Your task to perform on an android device: install app "Adobe Express: Graphic Design" Image 0: 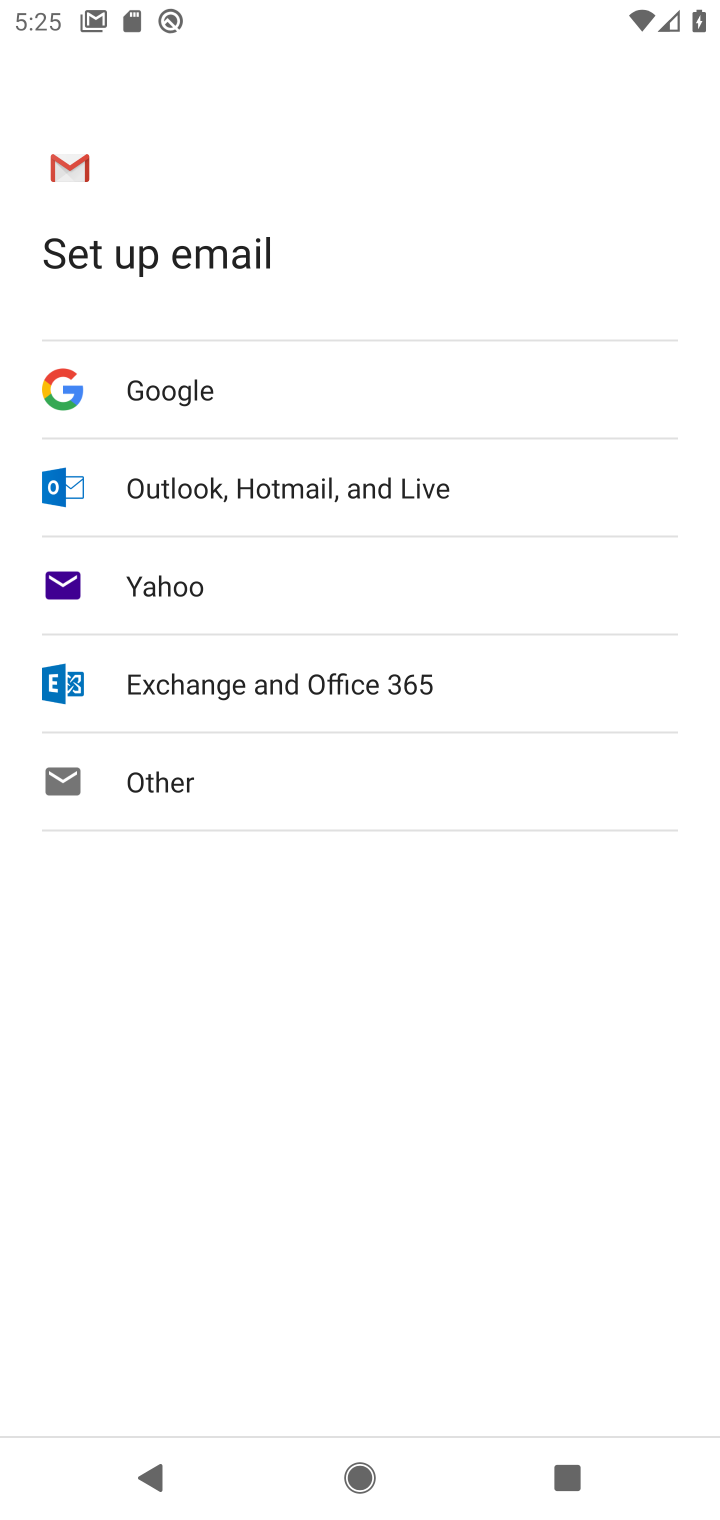
Step 0: press back button
Your task to perform on an android device: install app "Adobe Express: Graphic Design" Image 1: 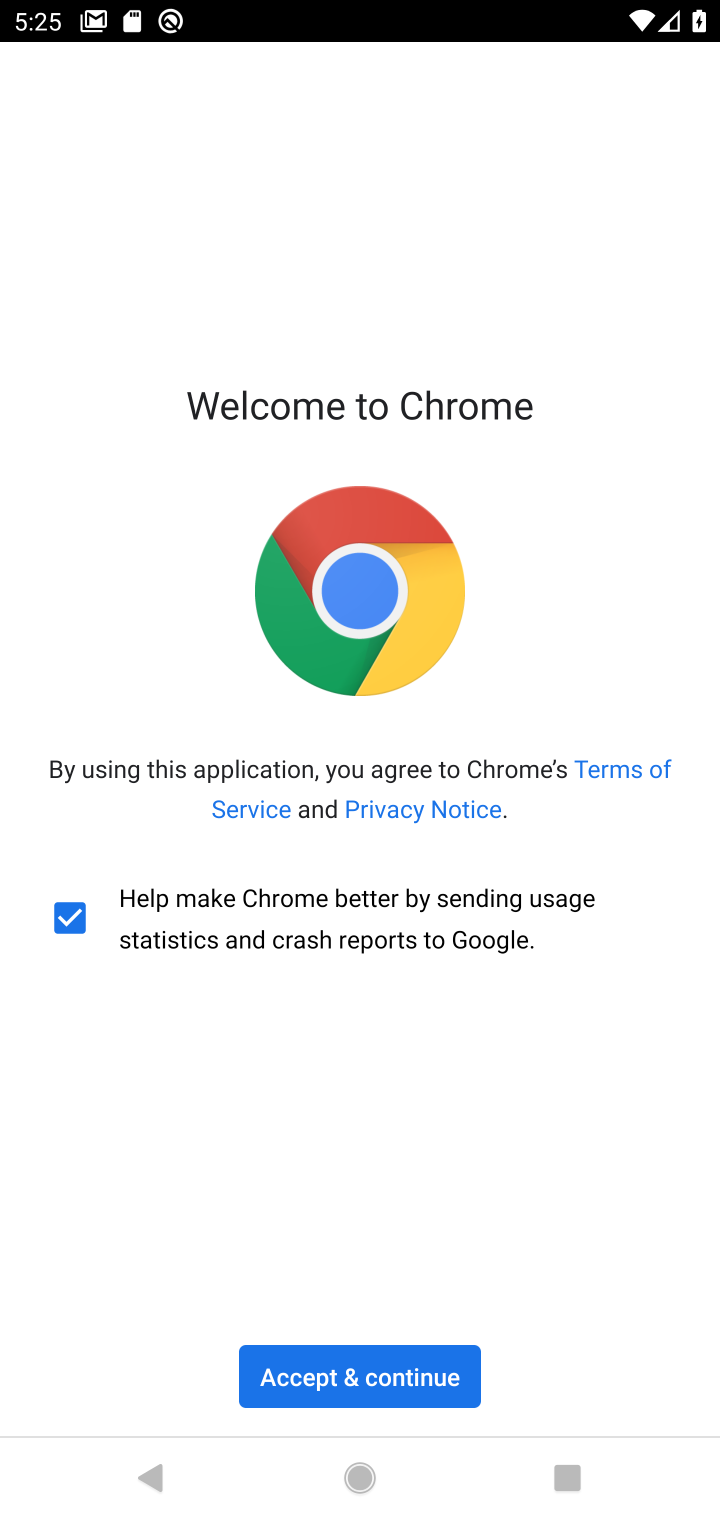
Step 1: press back button
Your task to perform on an android device: install app "Adobe Express: Graphic Design" Image 2: 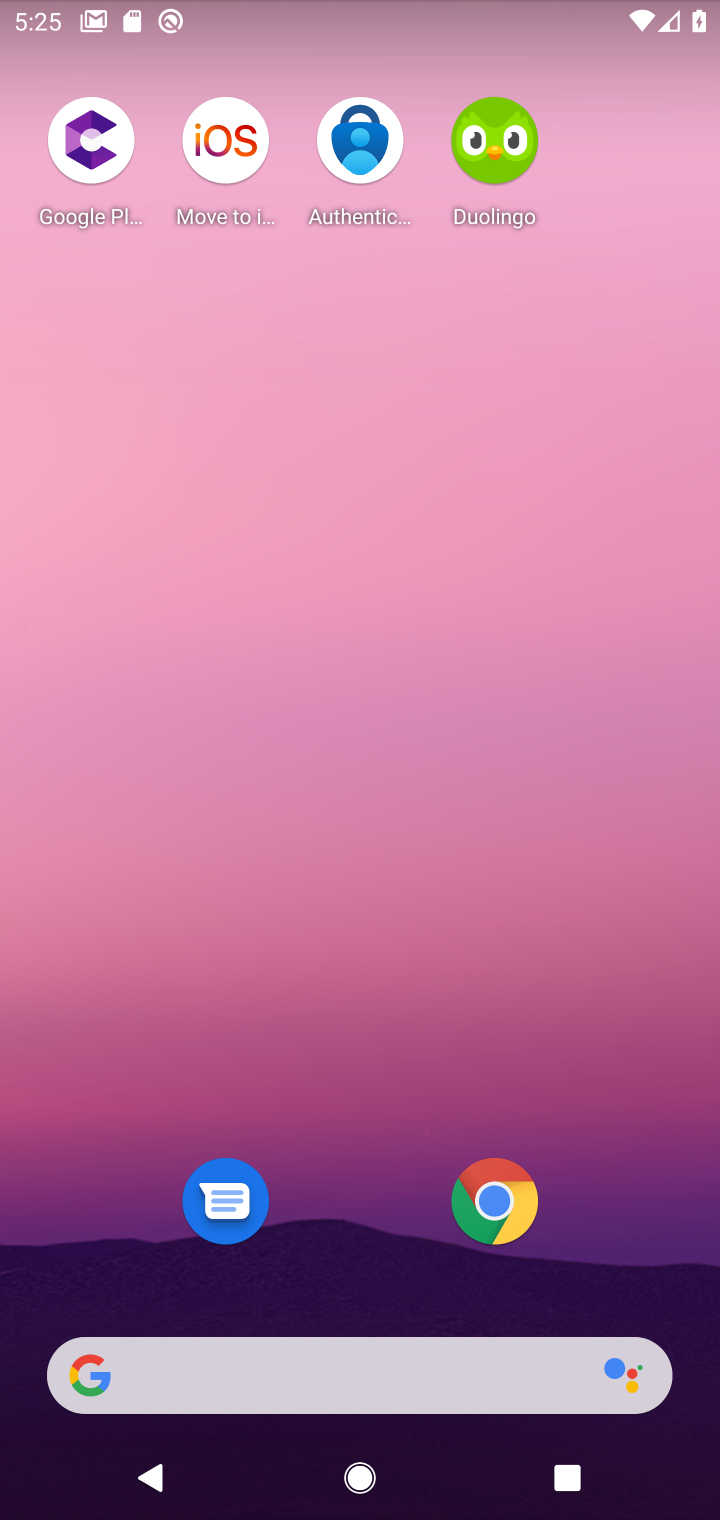
Step 2: drag from (320, 939) to (325, 530)
Your task to perform on an android device: install app "Adobe Express: Graphic Design" Image 3: 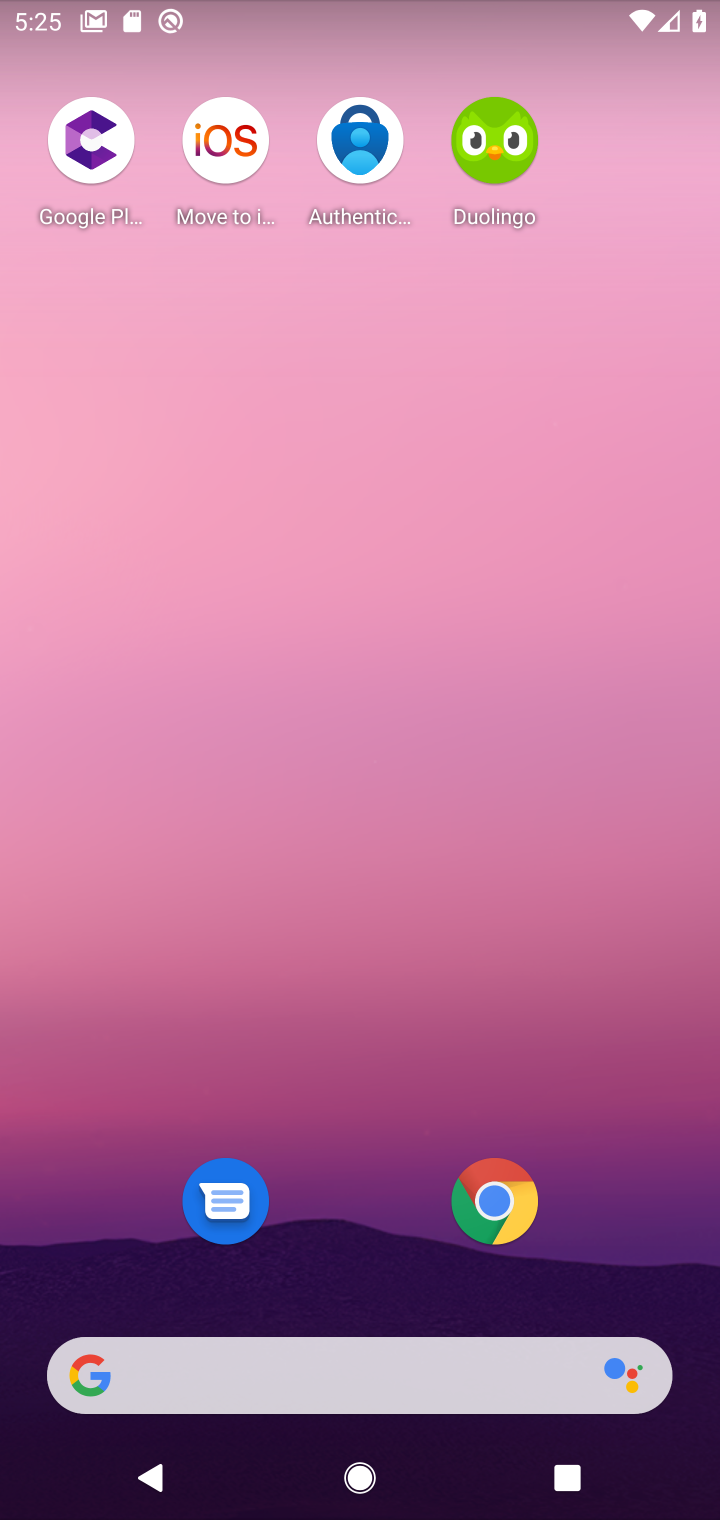
Step 3: drag from (370, 707) to (371, 37)
Your task to perform on an android device: install app "Adobe Express: Graphic Design" Image 4: 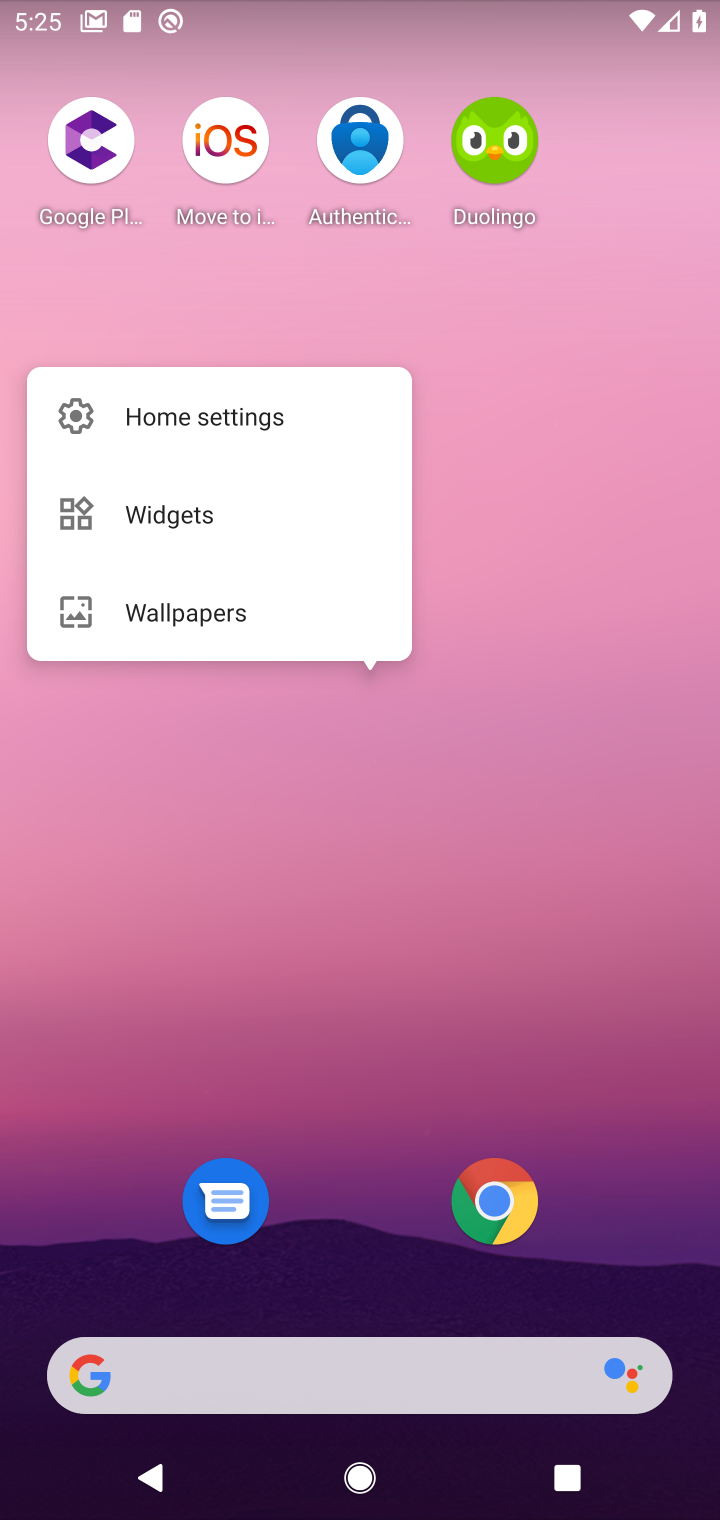
Step 4: drag from (352, 414) to (350, 319)
Your task to perform on an android device: install app "Adobe Express: Graphic Design" Image 5: 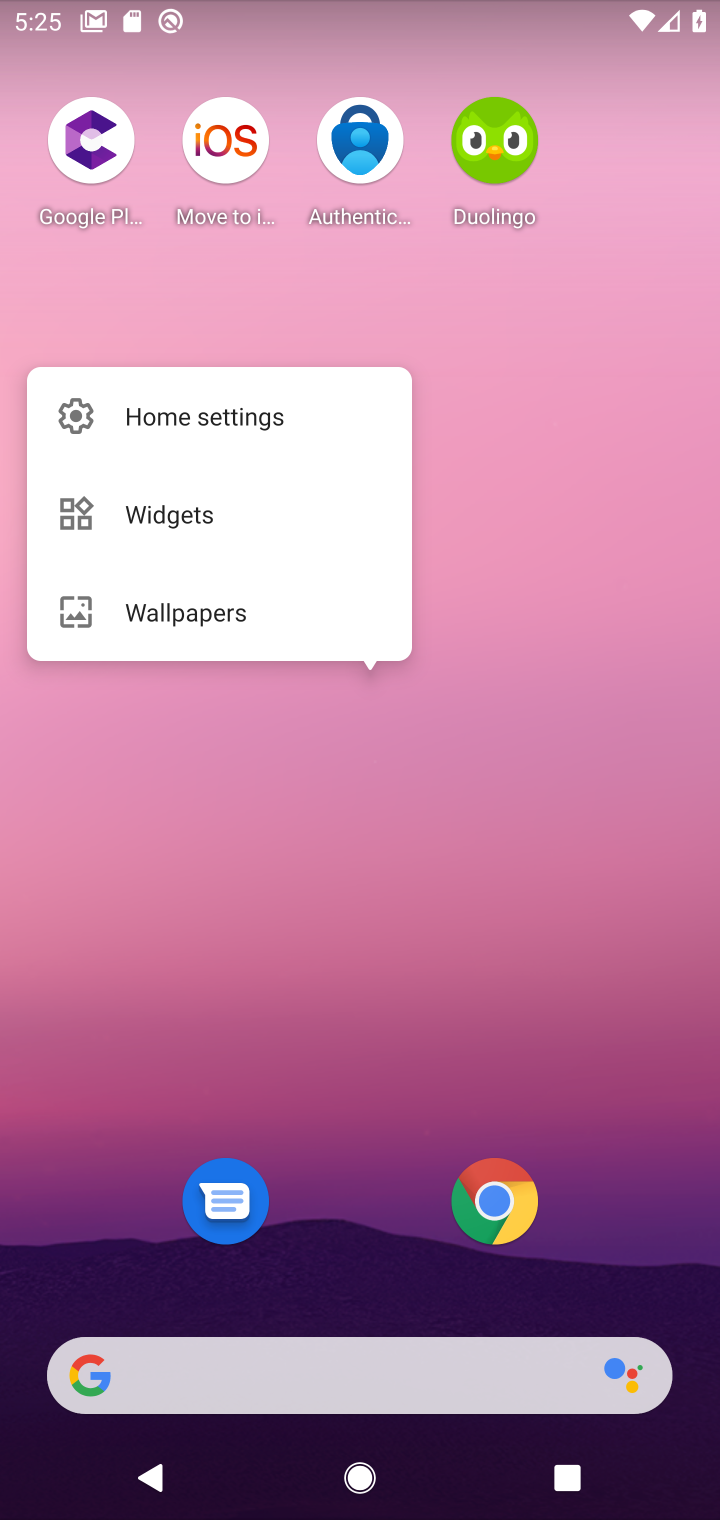
Step 5: drag from (415, 1008) to (433, 271)
Your task to perform on an android device: install app "Adobe Express: Graphic Design" Image 6: 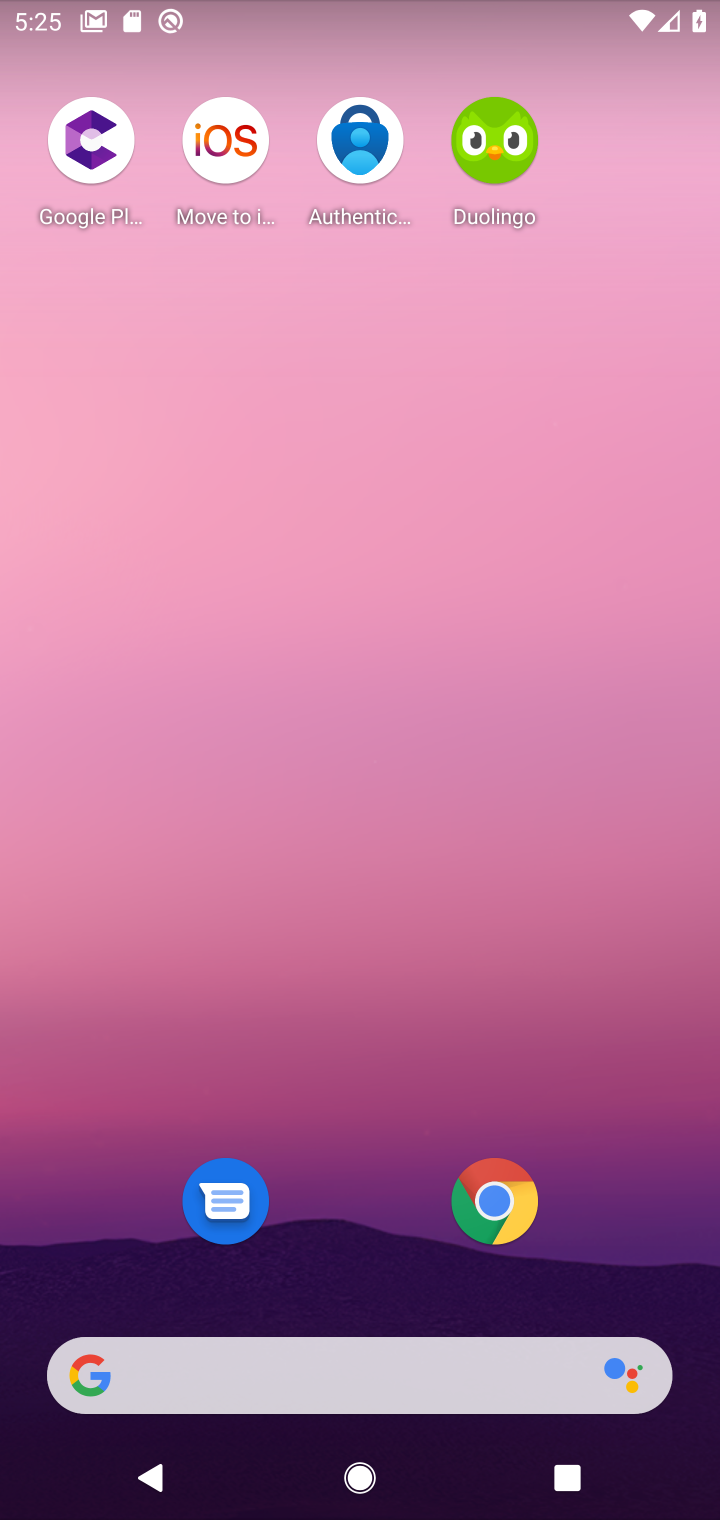
Step 6: drag from (315, 900) to (320, 463)
Your task to perform on an android device: install app "Adobe Express: Graphic Design" Image 7: 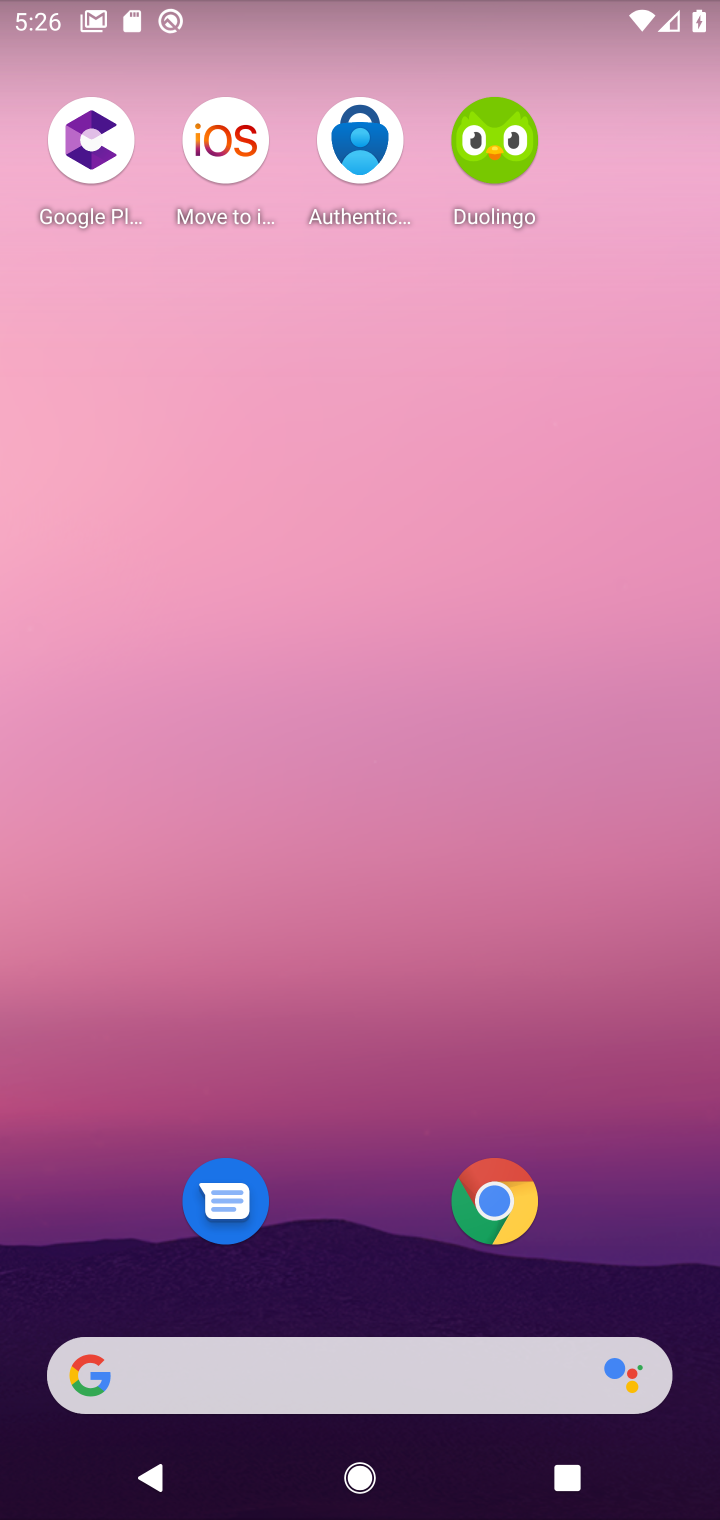
Step 7: drag from (355, 1129) to (509, 3)
Your task to perform on an android device: install app "Adobe Express: Graphic Design" Image 8: 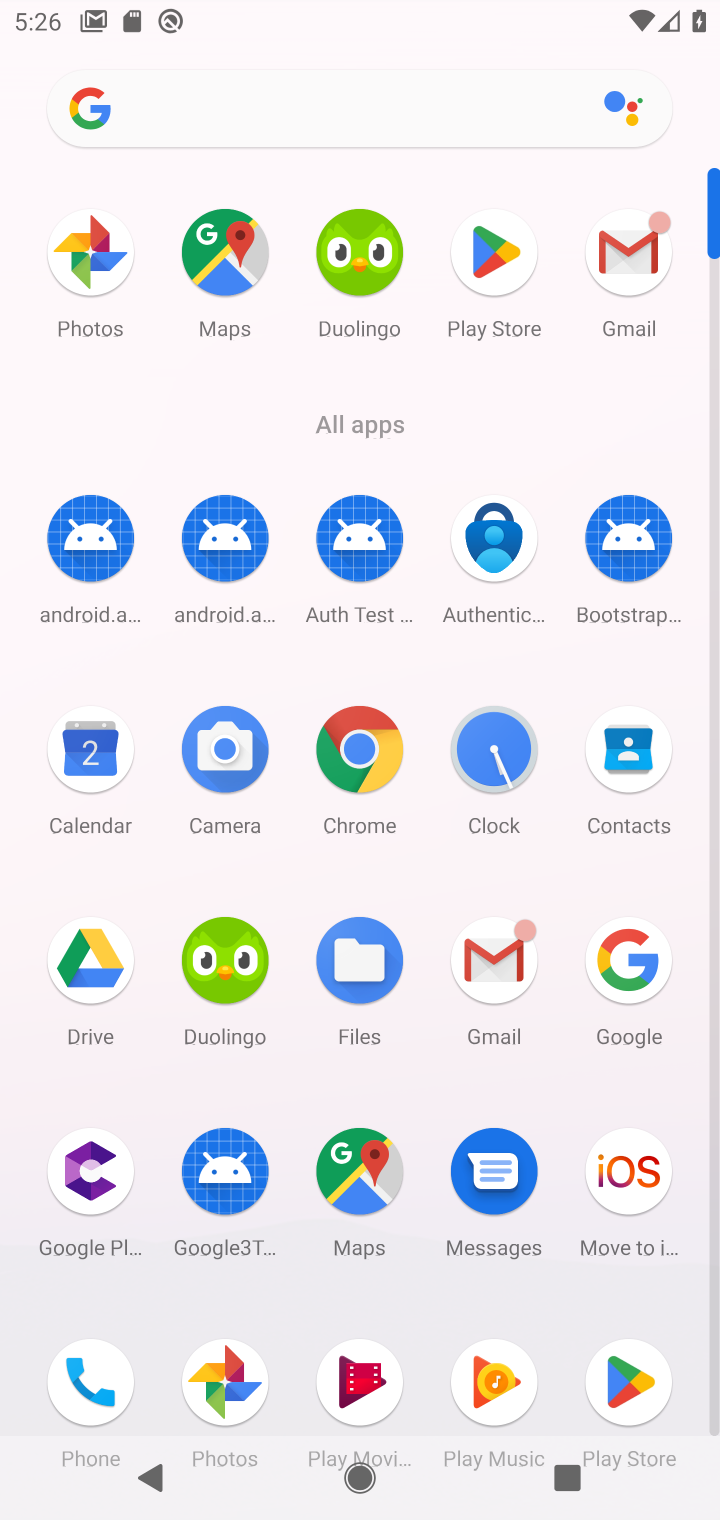
Step 8: click (489, 359)
Your task to perform on an android device: install app "Adobe Express: Graphic Design" Image 9: 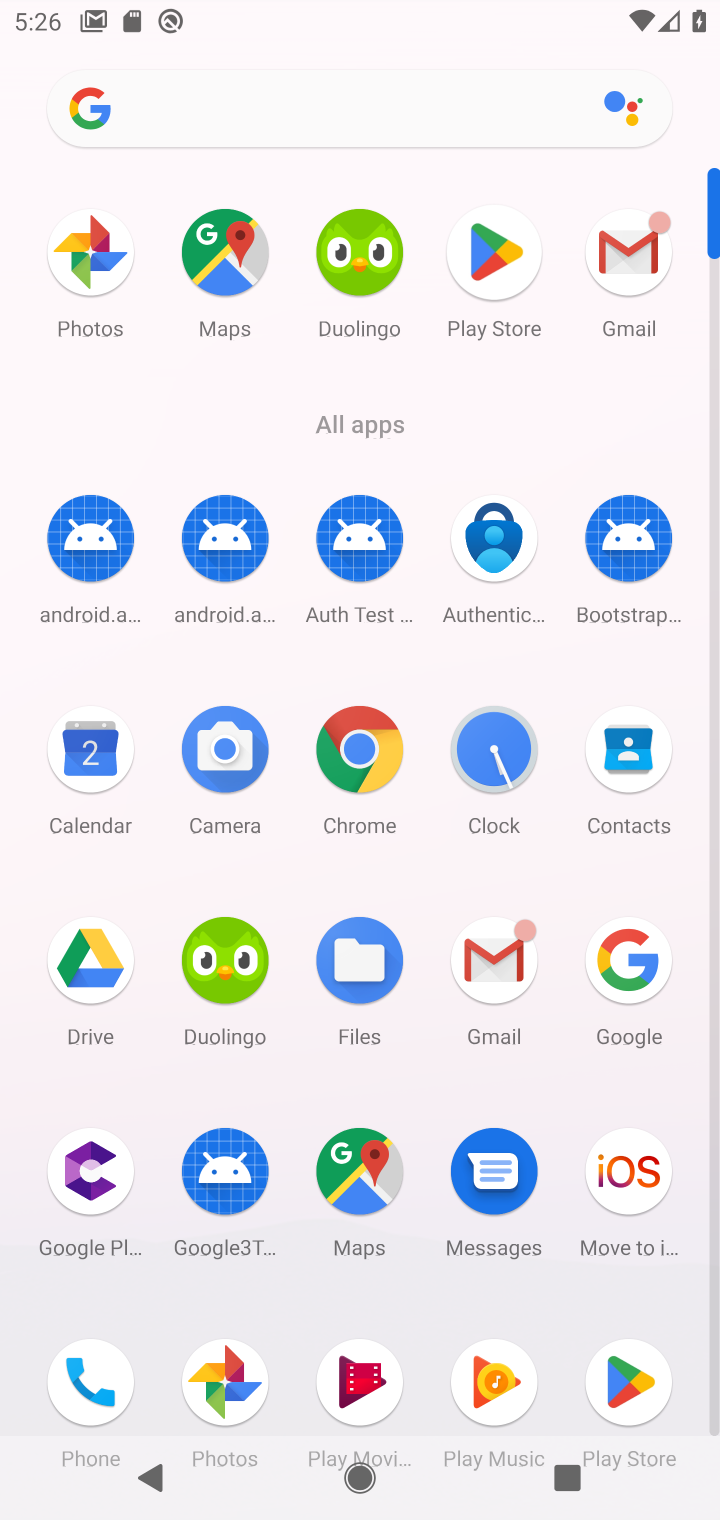
Step 9: click (480, 259)
Your task to perform on an android device: install app "Adobe Express: Graphic Design" Image 10: 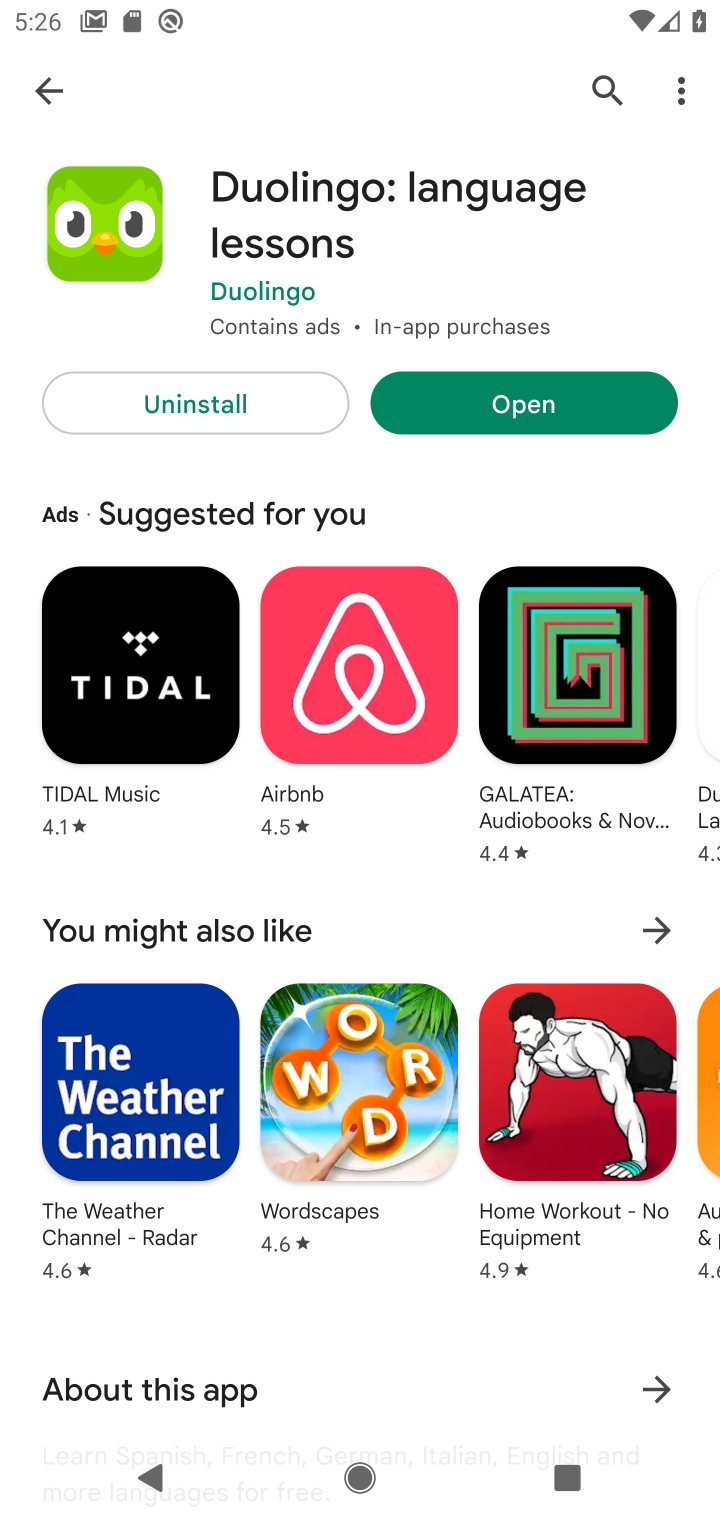
Step 10: click (607, 66)
Your task to perform on an android device: install app "Adobe Express: Graphic Design" Image 11: 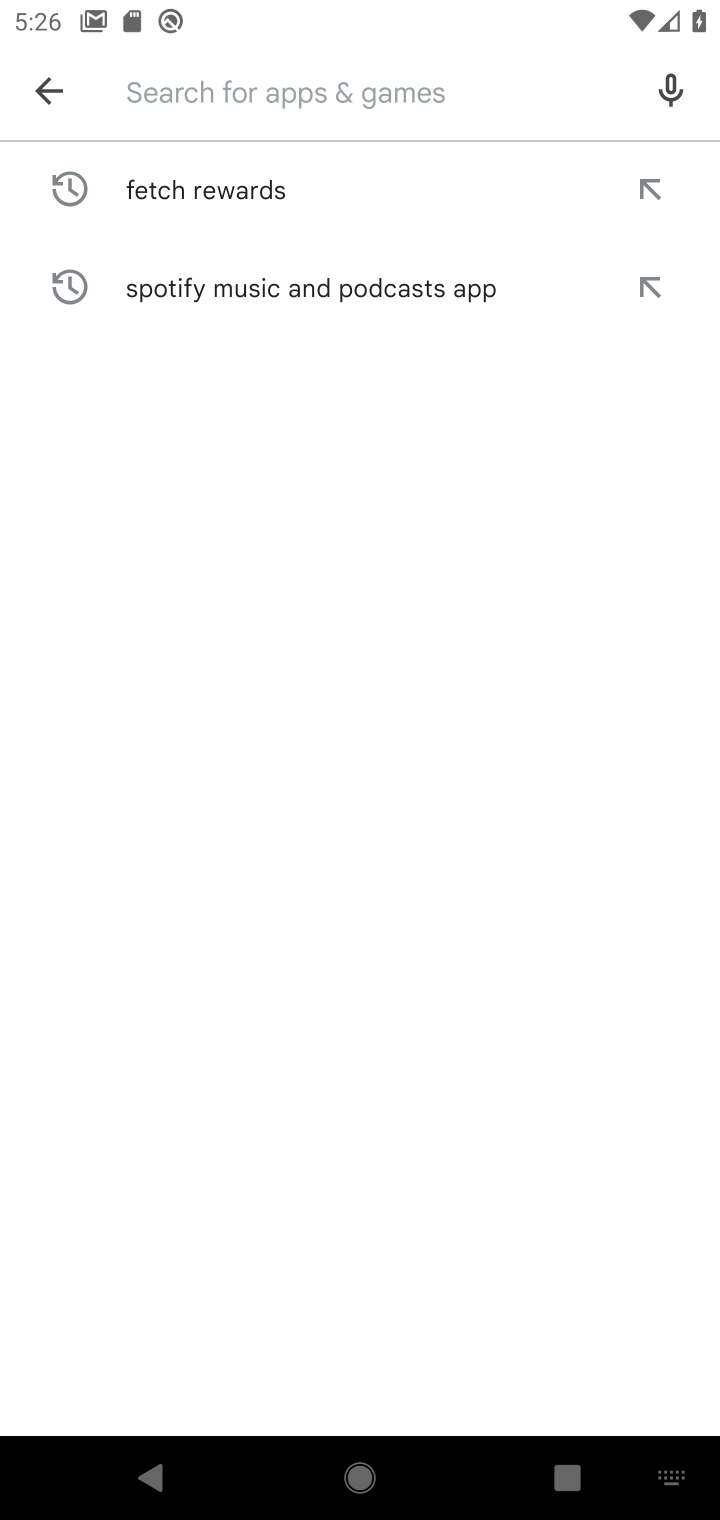
Step 11: type "Adobe Express: Graphic Design"
Your task to perform on an android device: install app "Adobe Express: Graphic Design" Image 12: 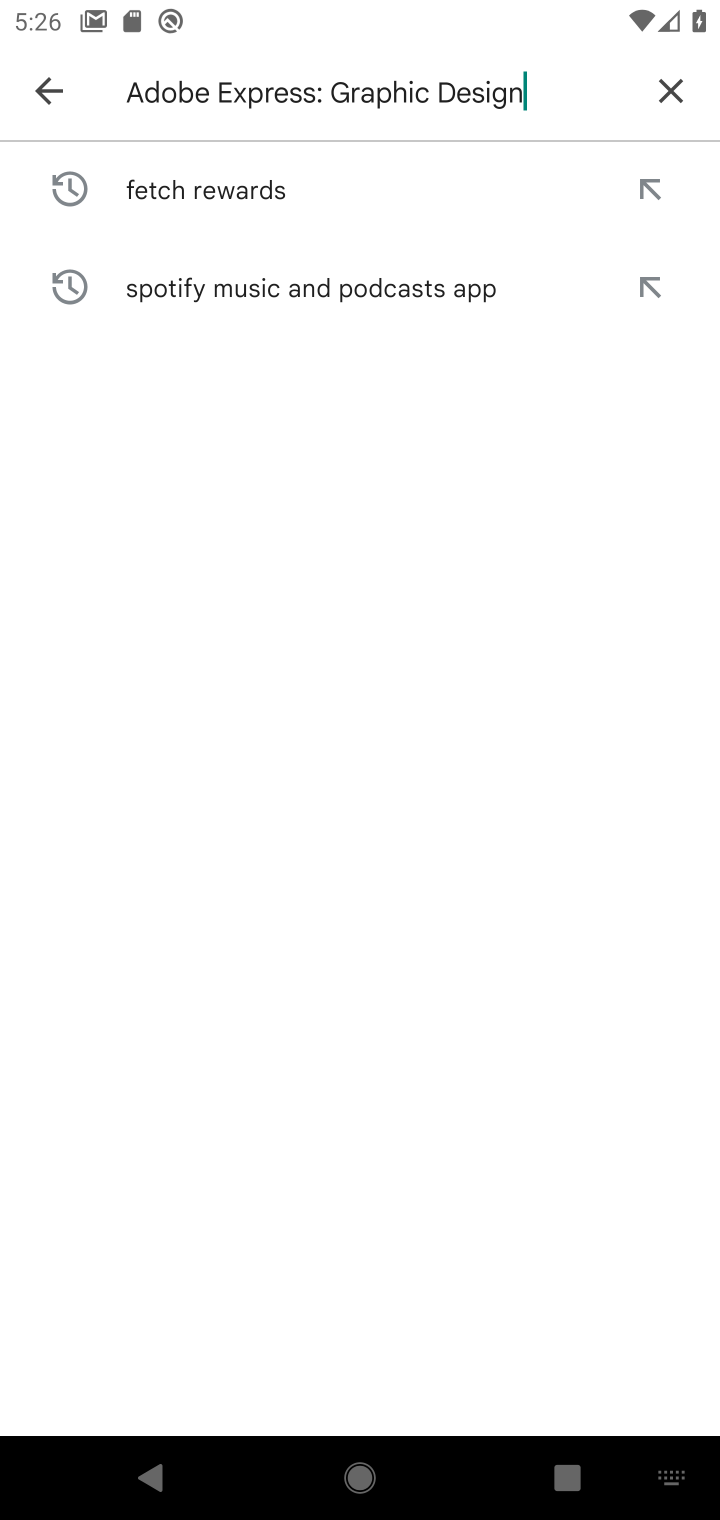
Step 12: type ""
Your task to perform on an android device: install app "Adobe Express: Graphic Design" Image 13: 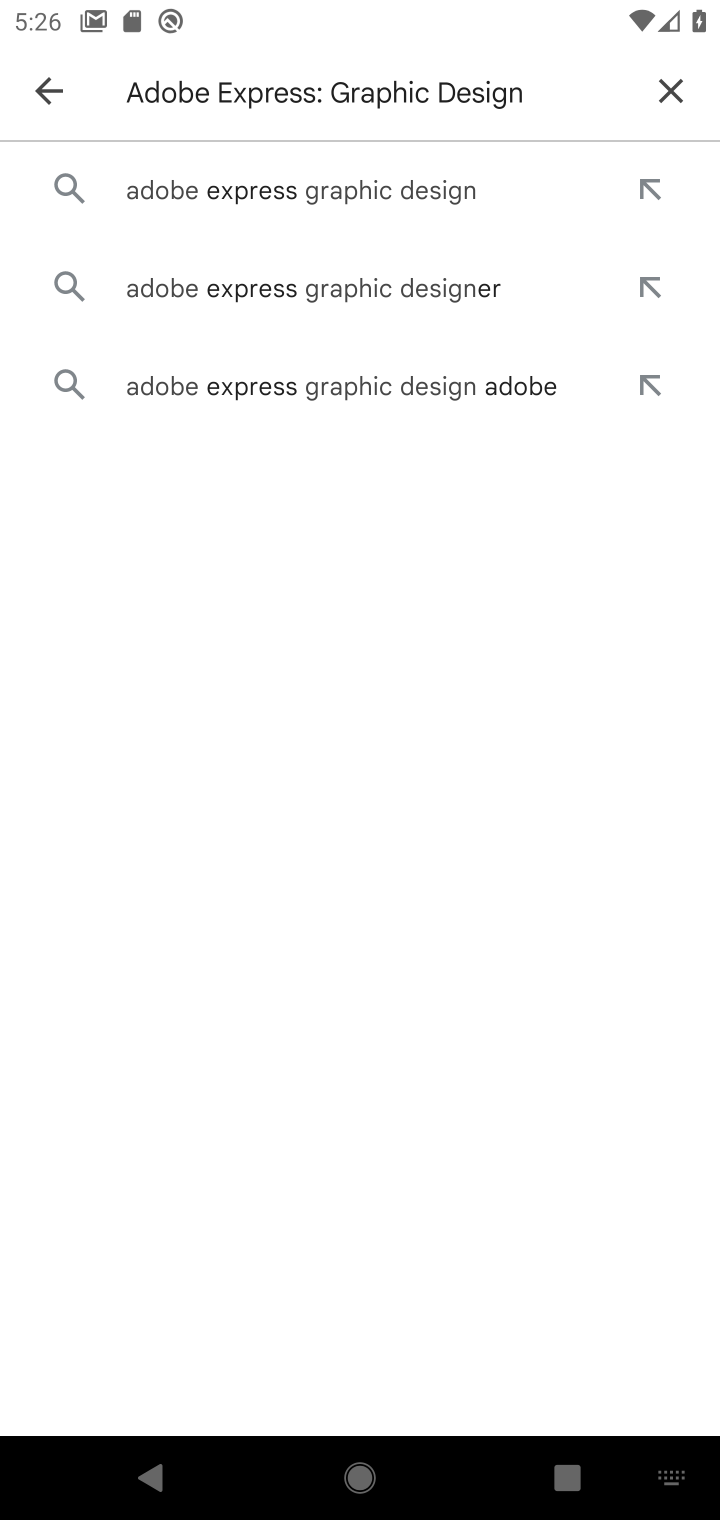
Step 13: click (530, 192)
Your task to perform on an android device: install app "Adobe Express: Graphic Design" Image 14: 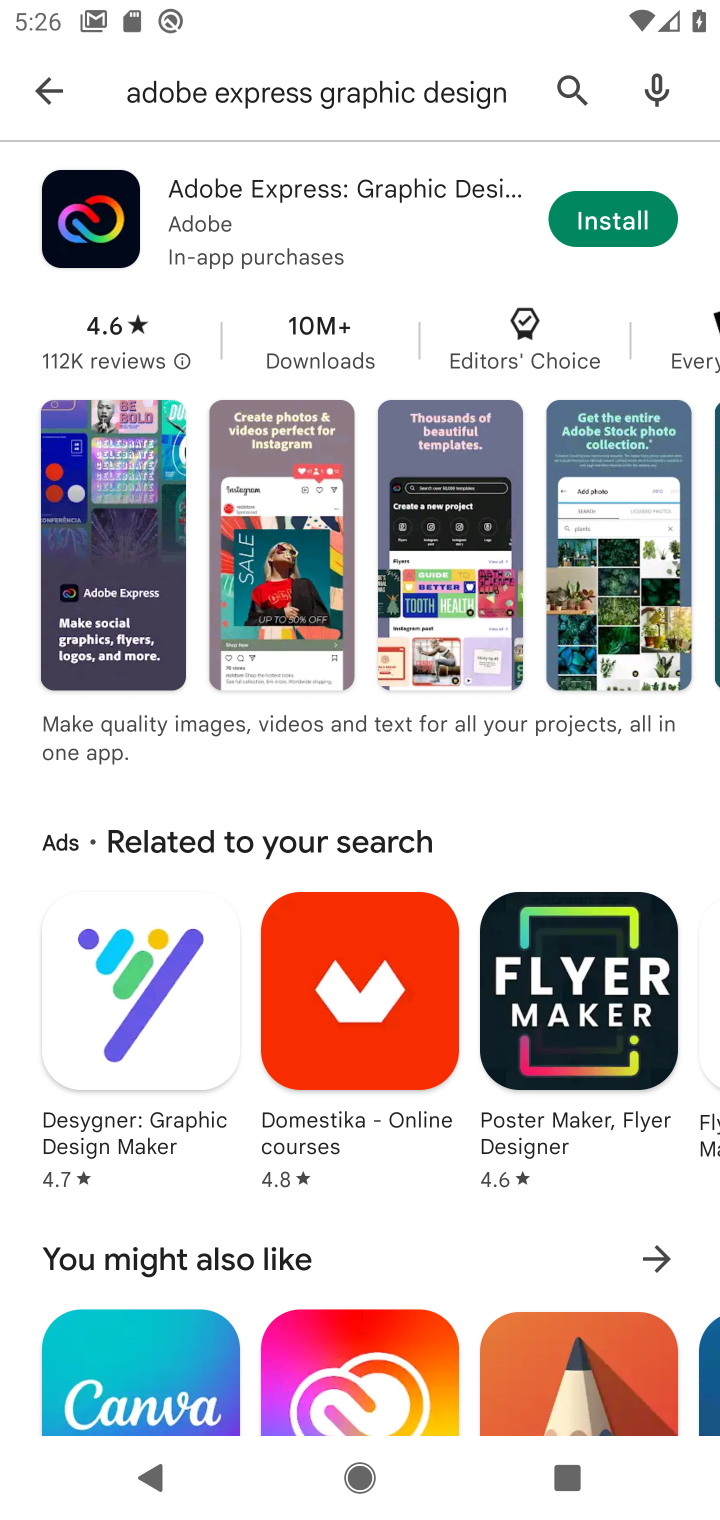
Step 14: click (611, 217)
Your task to perform on an android device: install app "Adobe Express: Graphic Design" Image 15: 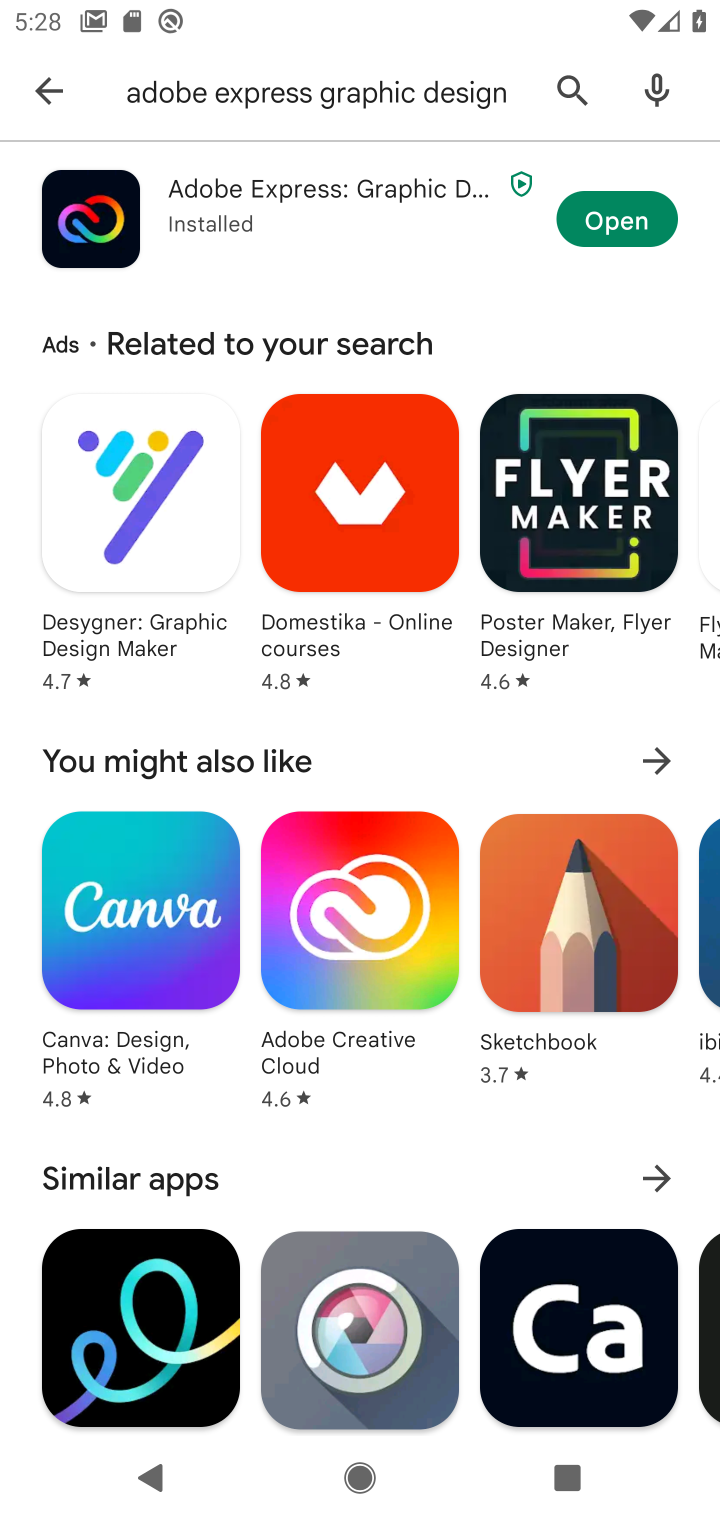
Step 15: task complete